Your task to perform on an android device: open app "Microsoft Authenticator" Image 0: 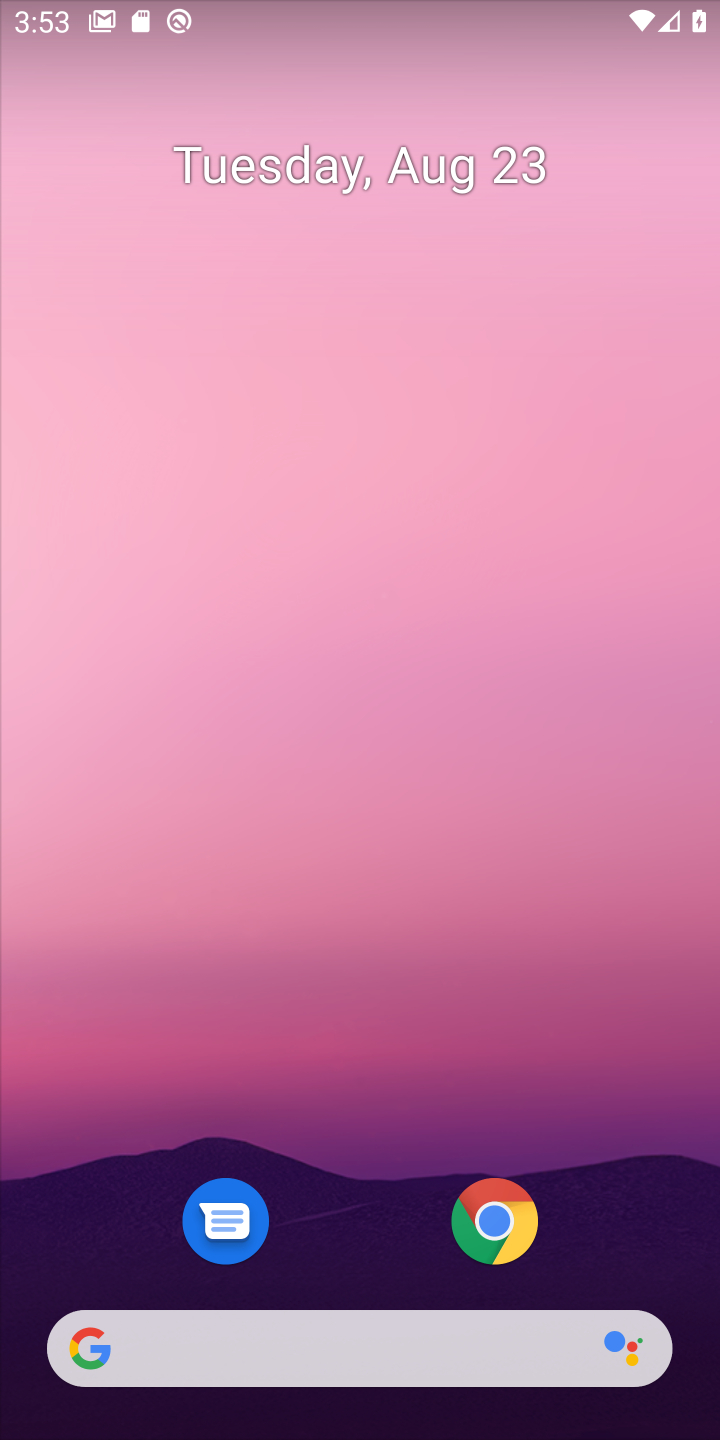
Step 0: drag from (355, 1092) to (384, 136)
Your task to perform on an android device: open app "Microsoft Authenticator" Image 1: 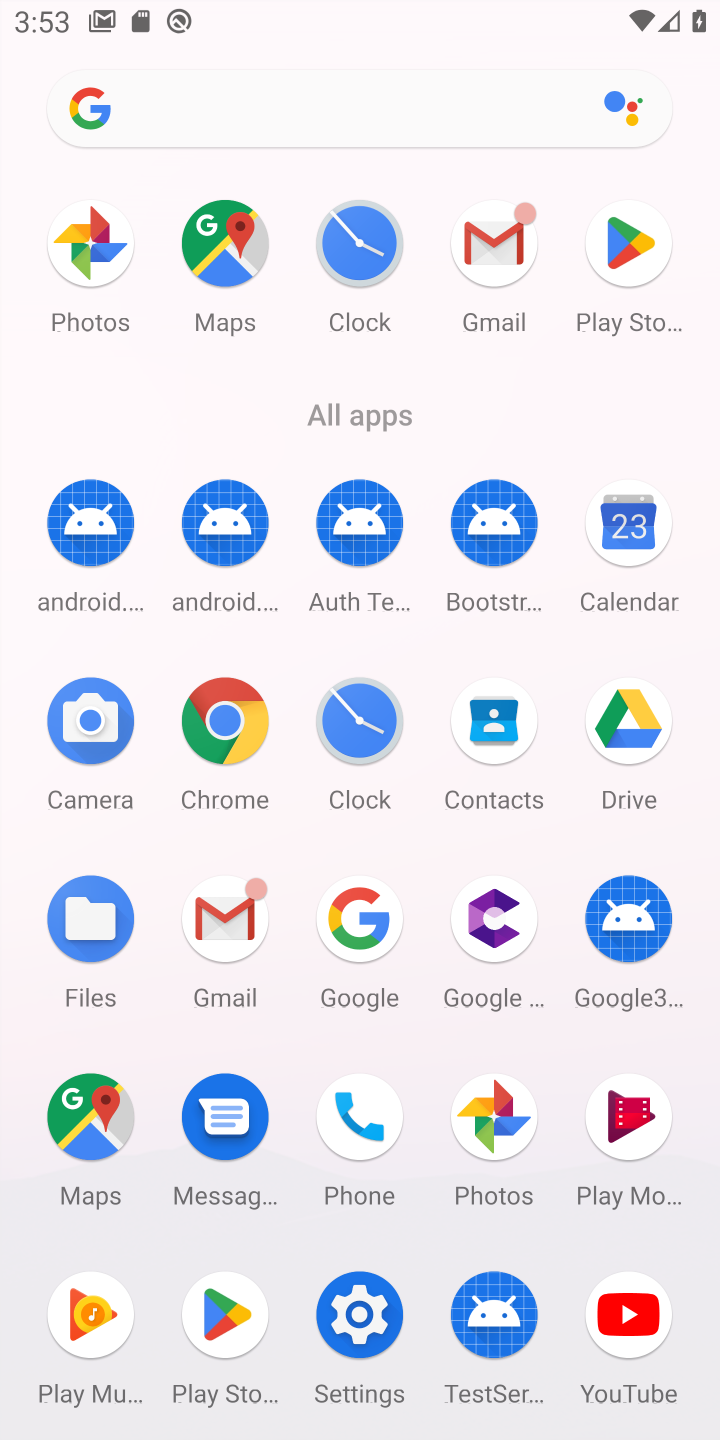
Step 1: click (627, 258)
Your task to perform on an android device: open app "Microsoft Authenticator" Image 2: 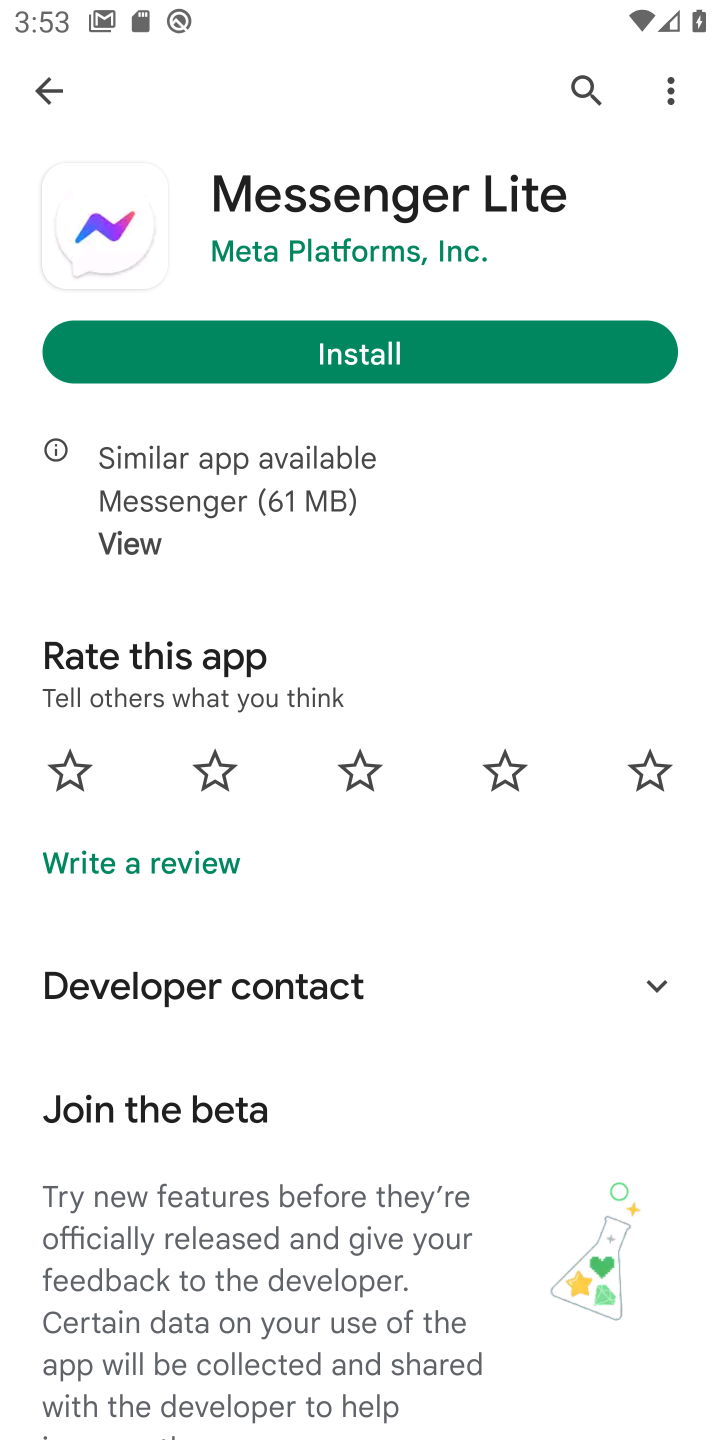
Step 2: click (37, 86)
Your task to perform on an android device: open app "Microsoft Authenticator" Image 3: 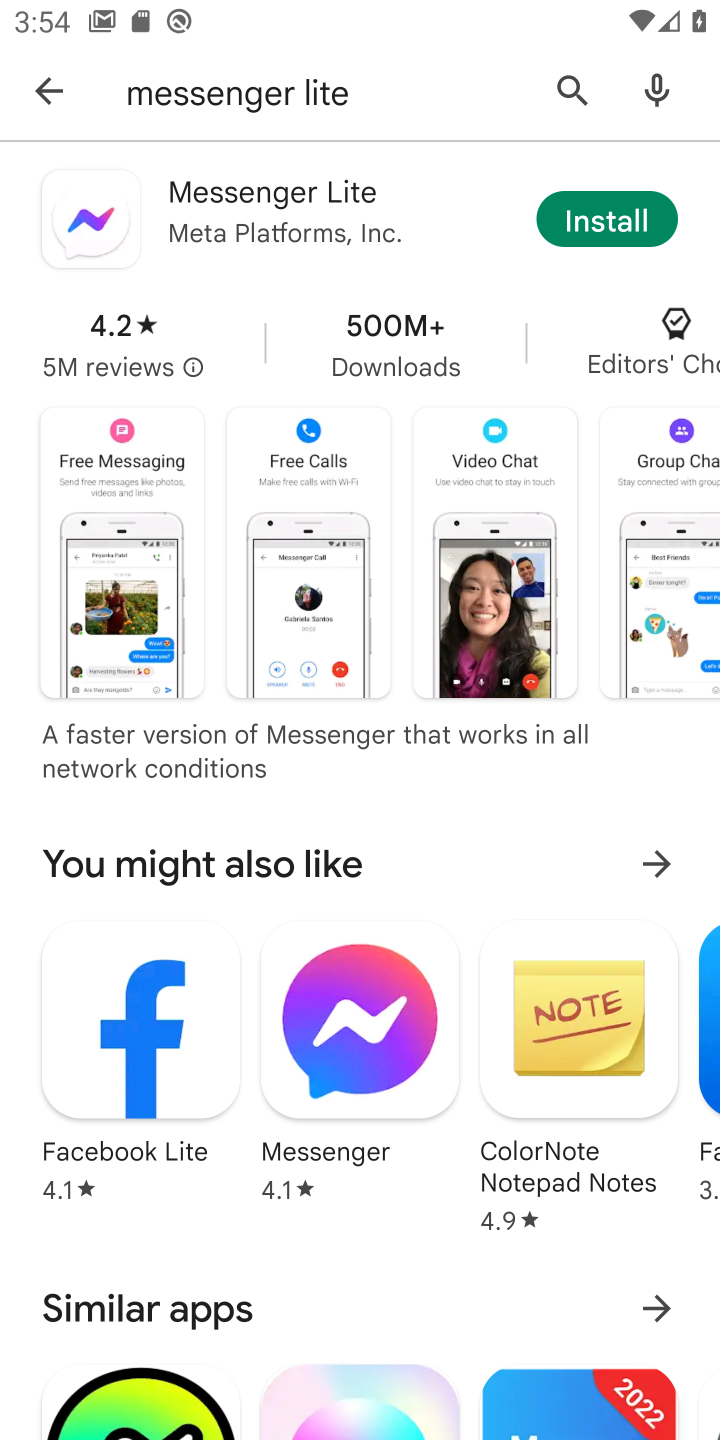
Step 3: click (48, 88)
Your task to perform on an android device: open app "Microsoft Authenticator" Image 4: 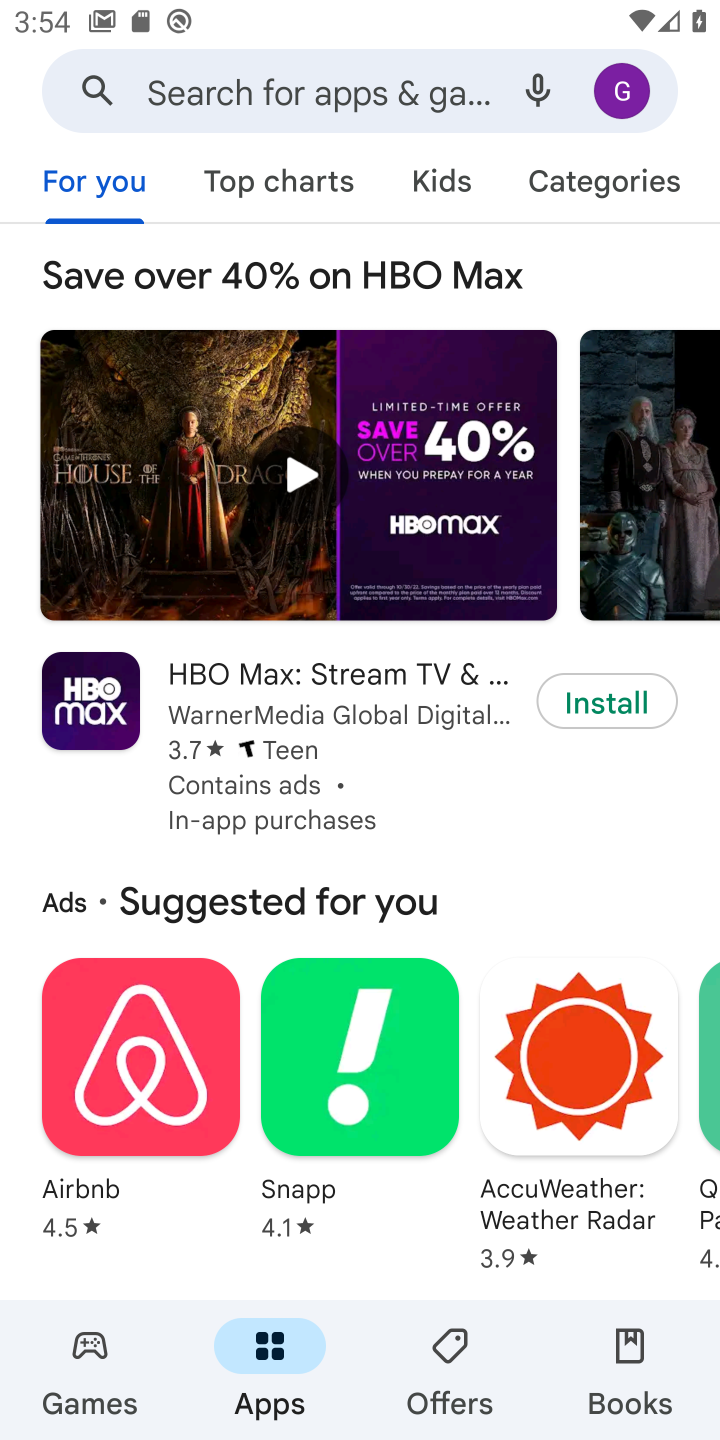
Step 4: click (43, 91)
Your task to perform on an android device: open app "Microsoft Authenticator" Image 5: 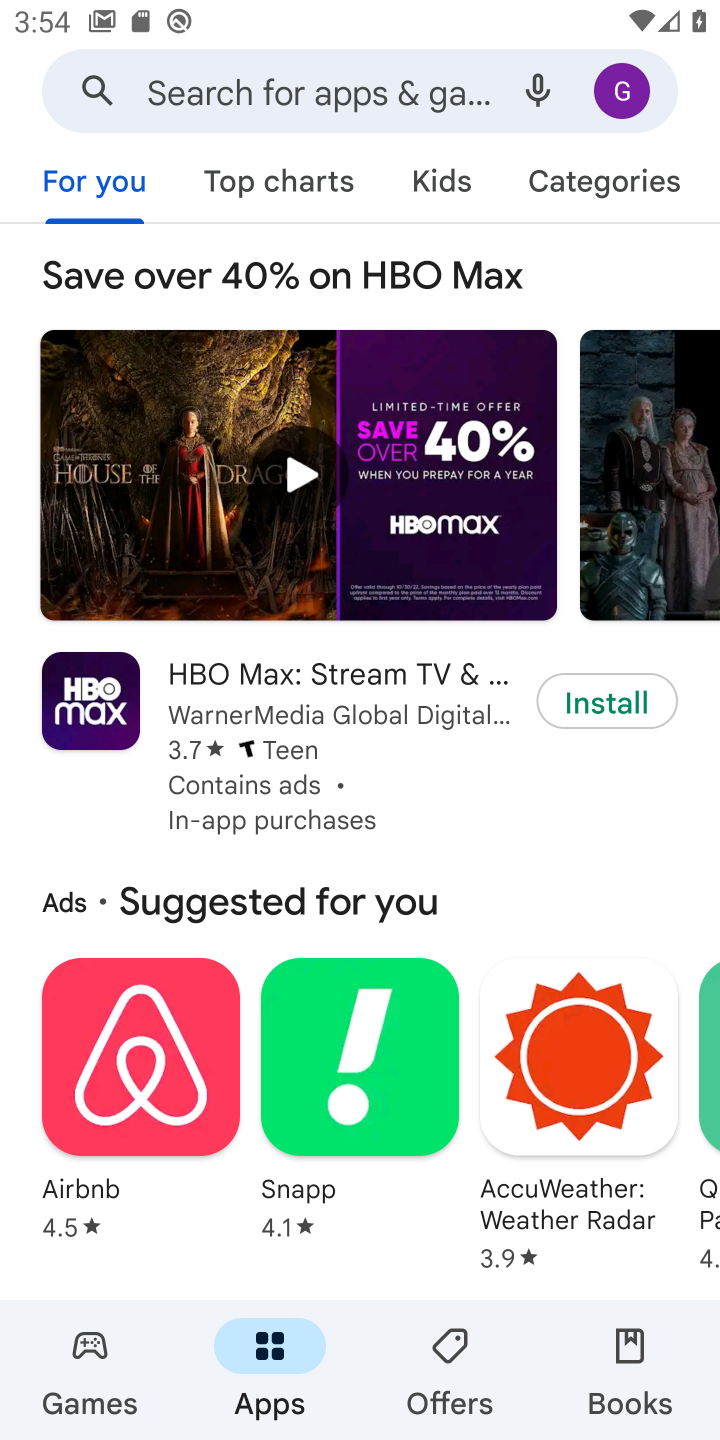
Step 5: click (286, 71)
Your task to perform on an android device: open app "Microsoft Authenticator" Image 6: 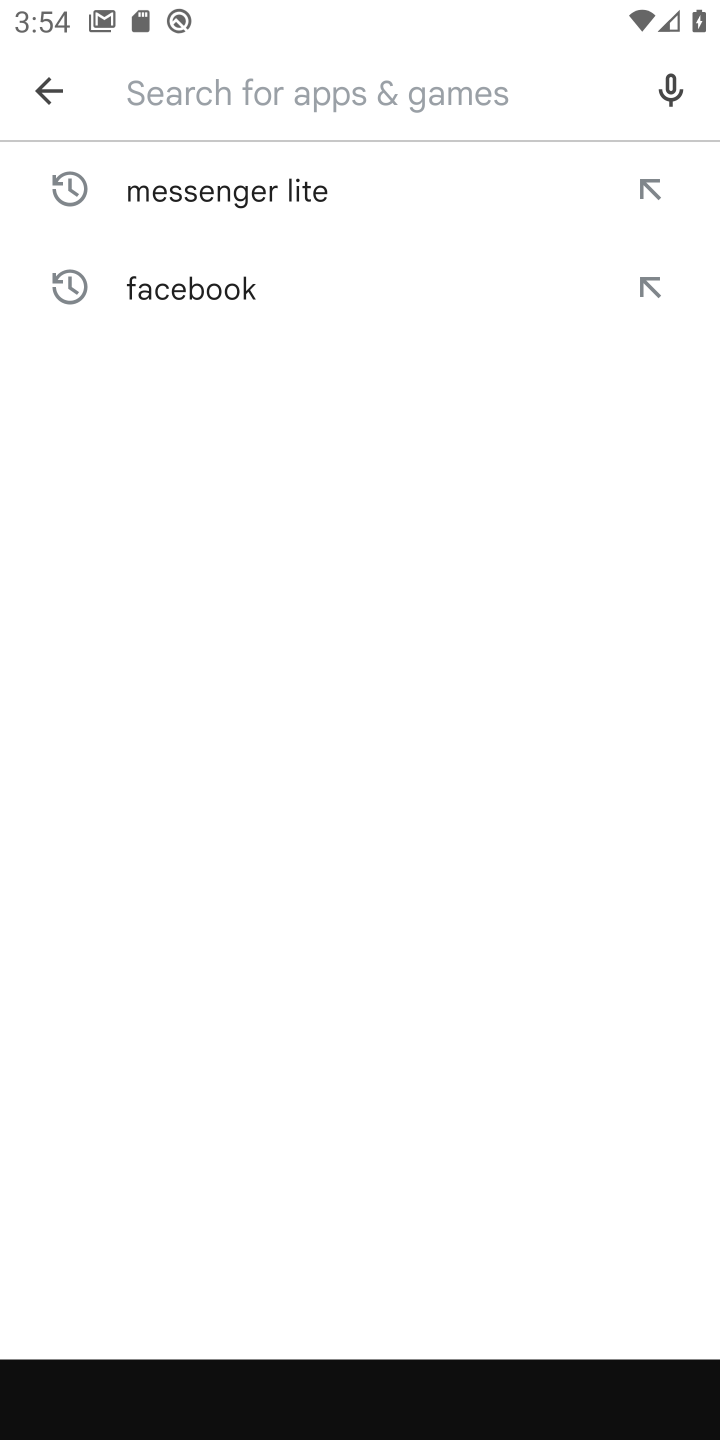
Step 6: type "Messenger Lite"
Your task to perform on an android device: open app "Microsoft Authenticator" Image 7: 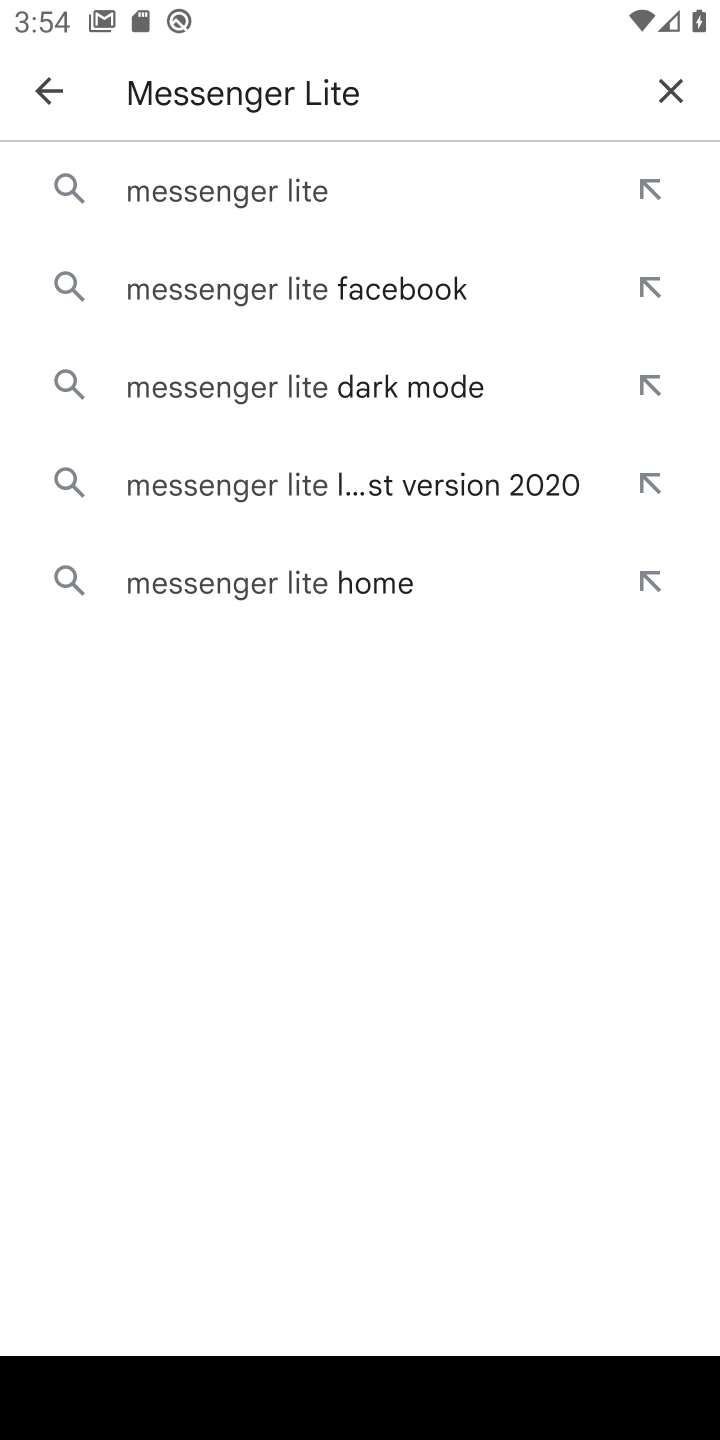
Step 7: click (34, 82)
Your task to perform on an android device: open app "Microsoft Authenticator" Image 8: 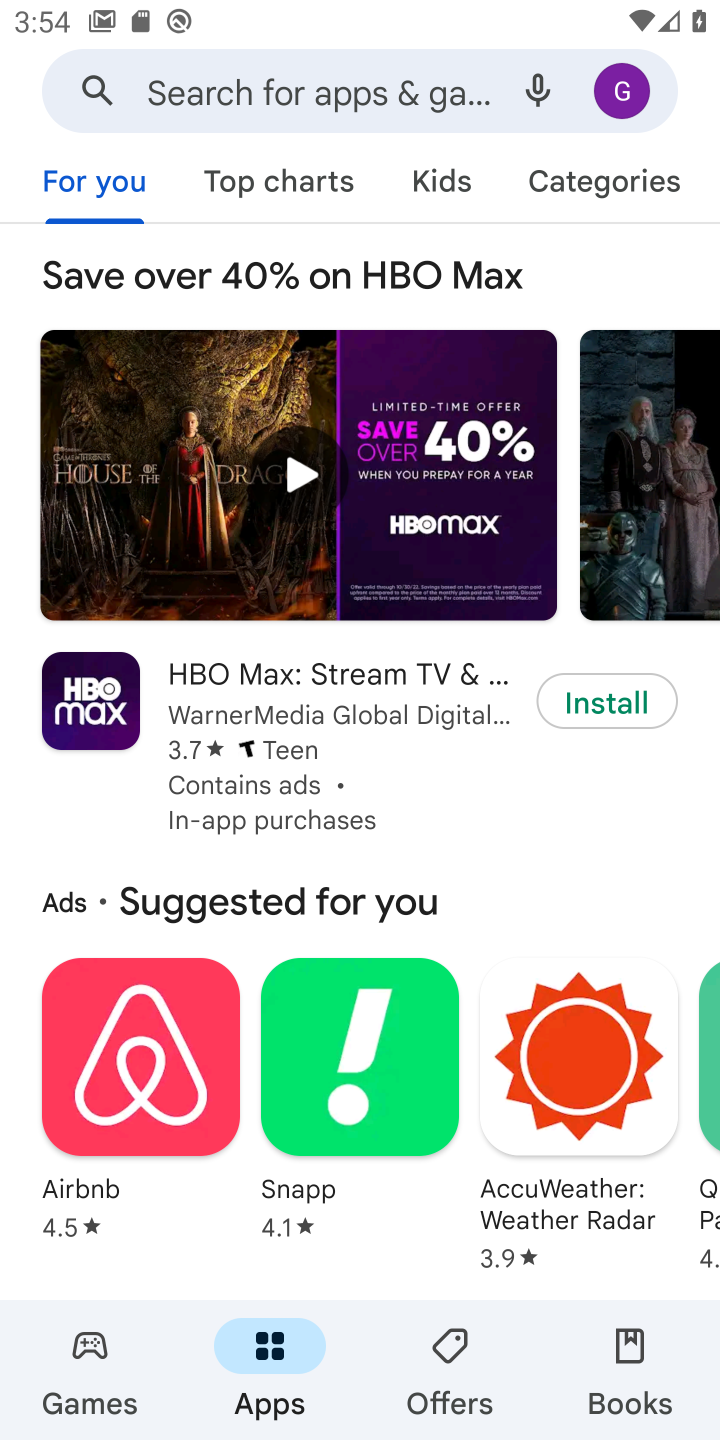
Step 8: click (294, 94)
Your task to perform on an android device: open app "Microsoft Authenticator" Image 9: 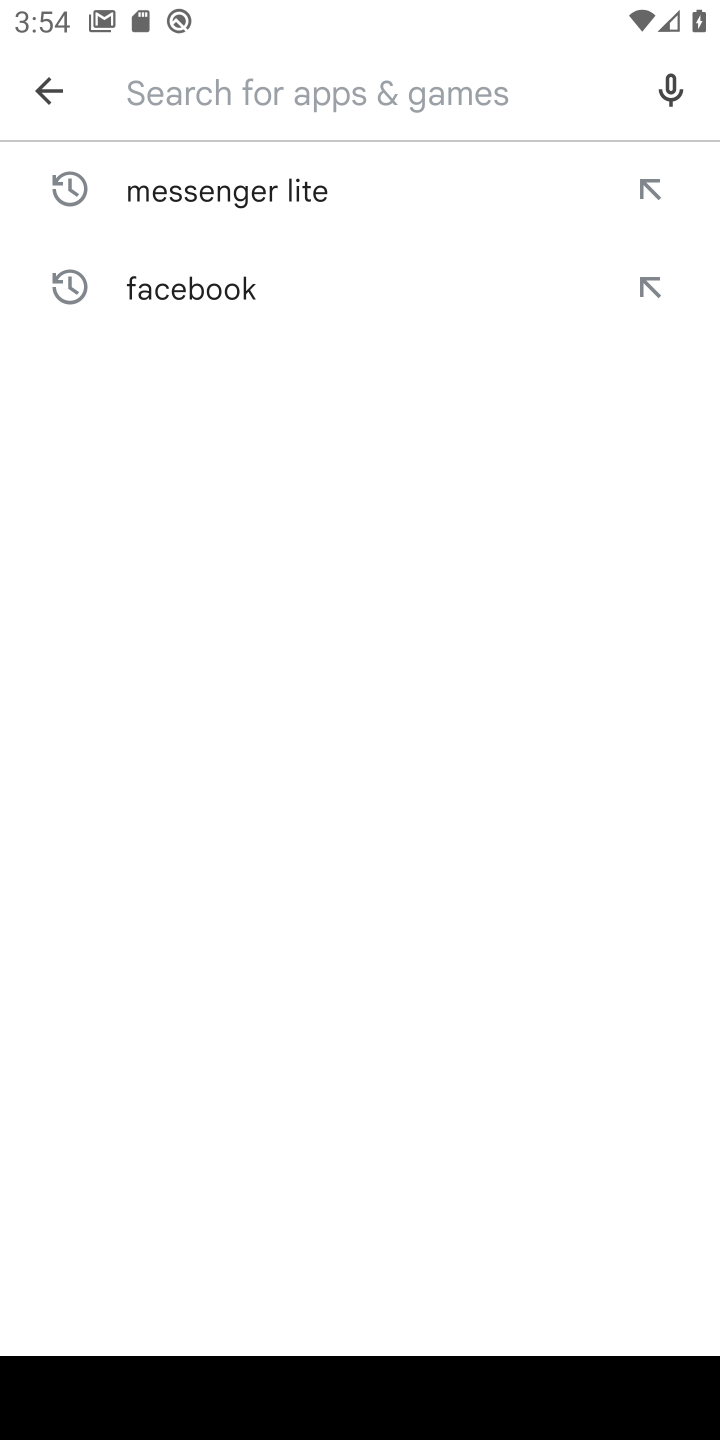
Step 9: type "Microsoft Authenticator"
Your task to perform on an android device: open app "Microsoft Authenticator" Image 10: 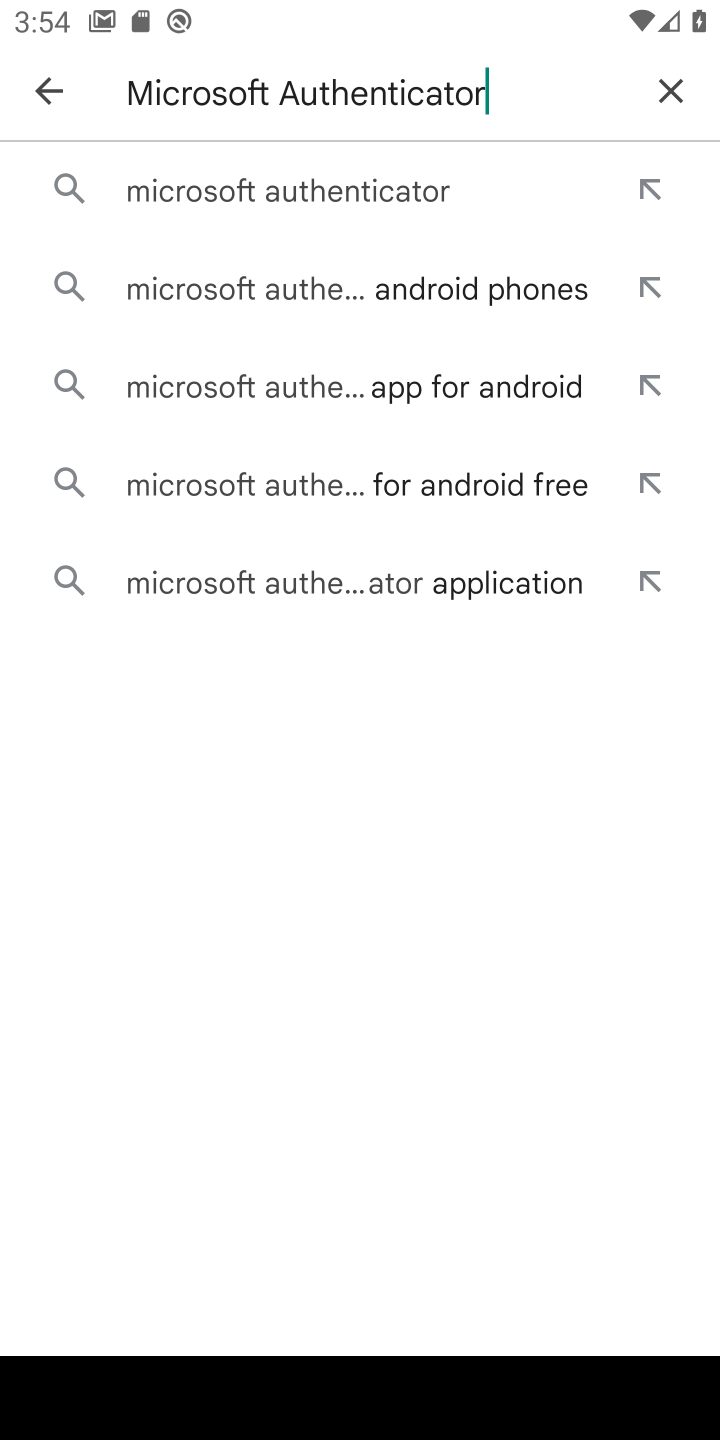
Step 10: click (295, 189)
Your task to perform on an android device: open app "Microsoft Authenticator" Image 11: 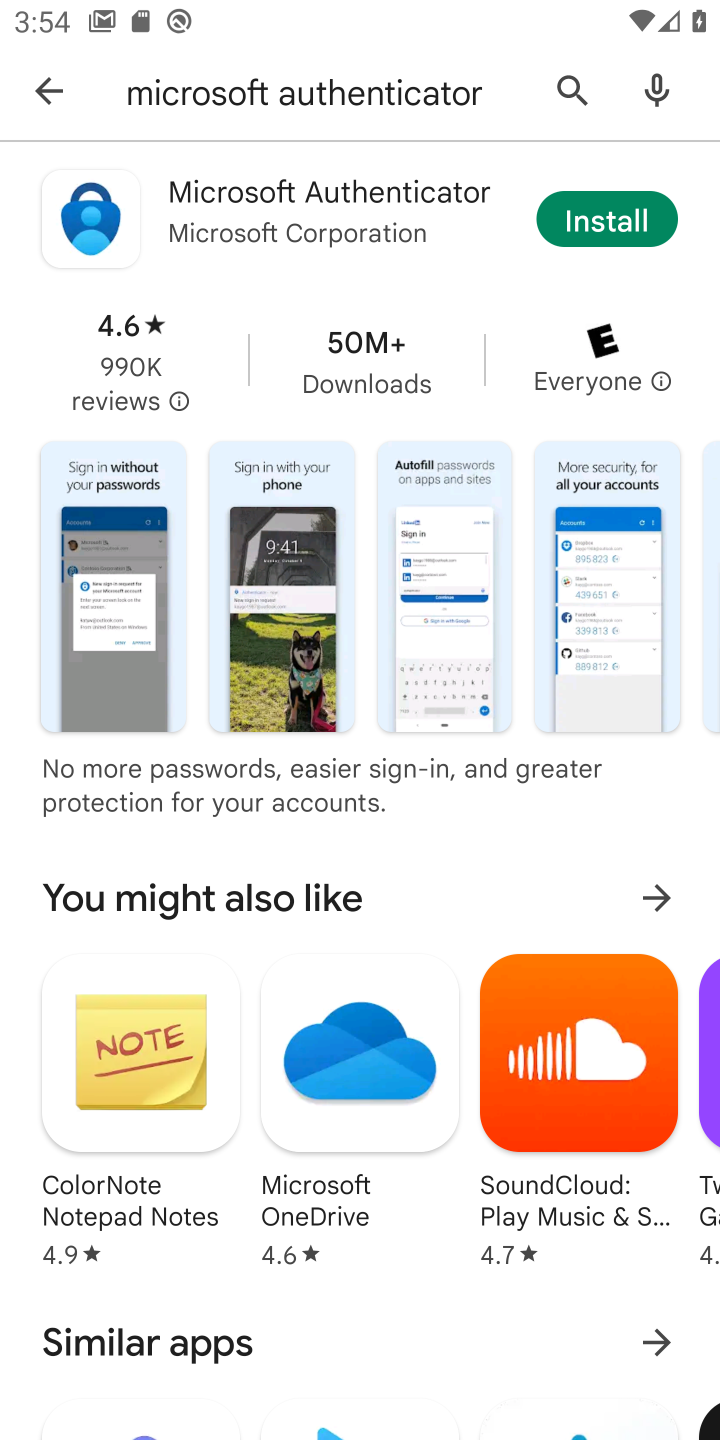
Step 11: click (624, 196)
Your task to perform on an android device: open app "Microsoft Authenticator" Image 12: 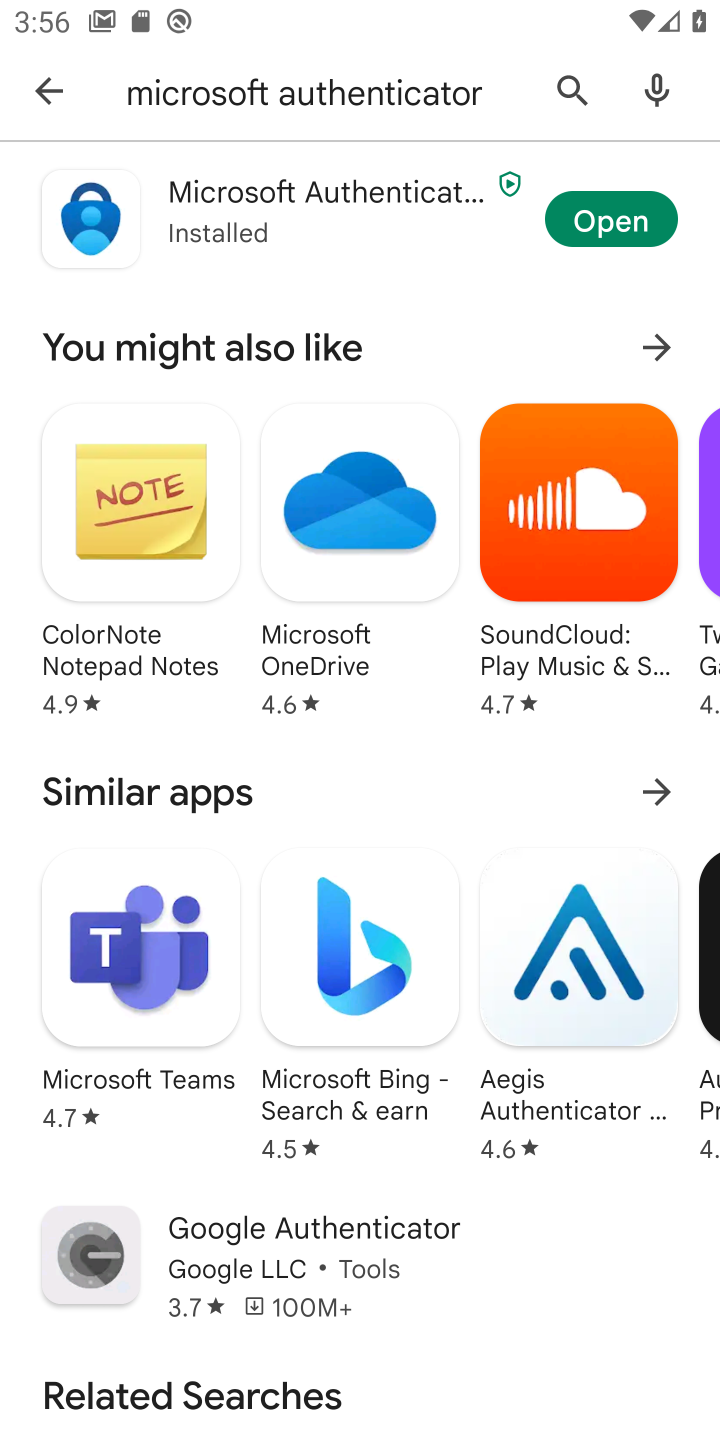
Step 12: click (611, 200)
Your task to perform on an android device: open app "Microsoft Authenticator" Image 13: 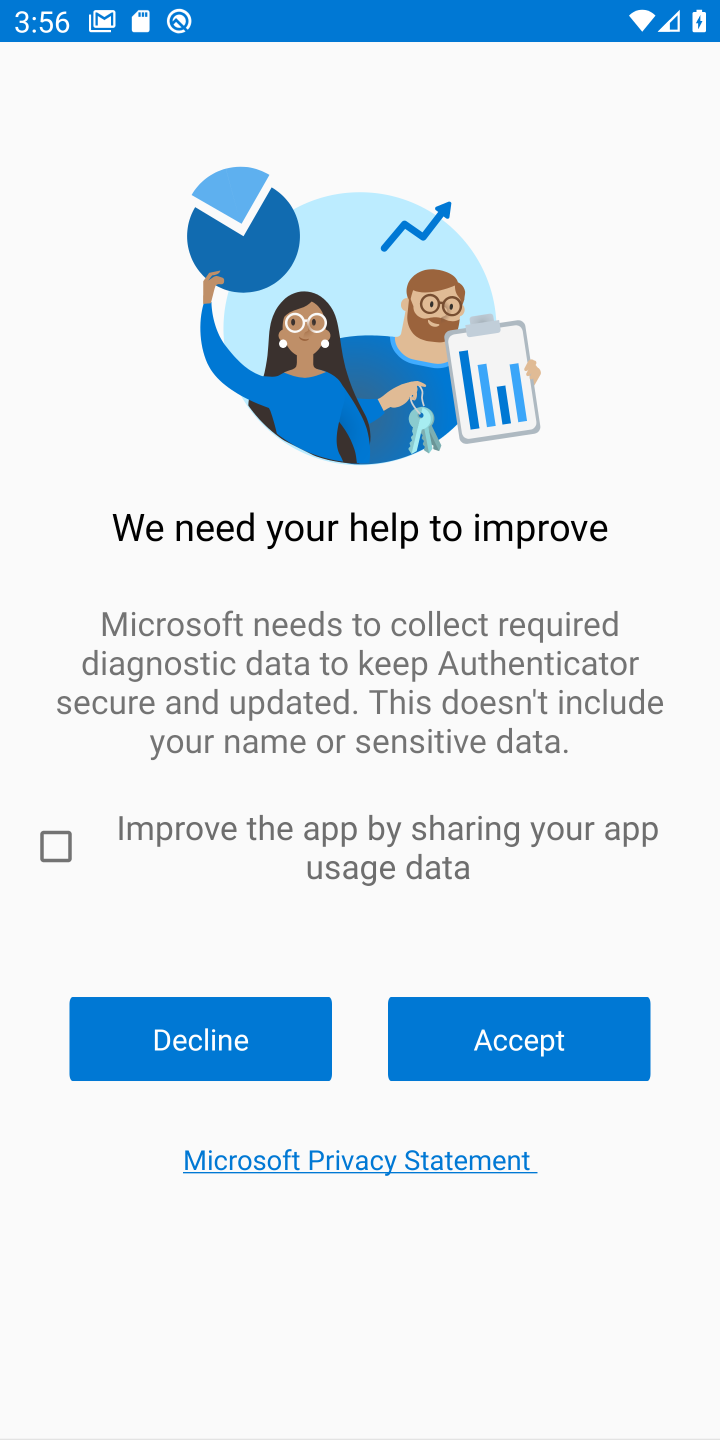
Step 13: task complete